Your task to perform on an android device: turn off javascript in the chrome app Image 0: 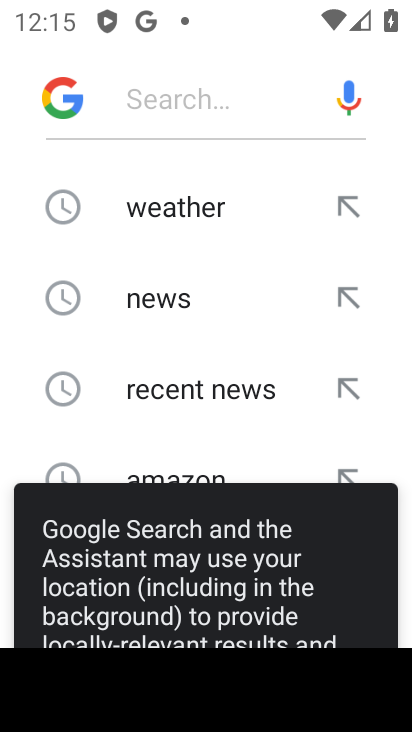
Step 0: press home button
Your task to perform on an android device: turn off javascript in the chrome app Image 1: 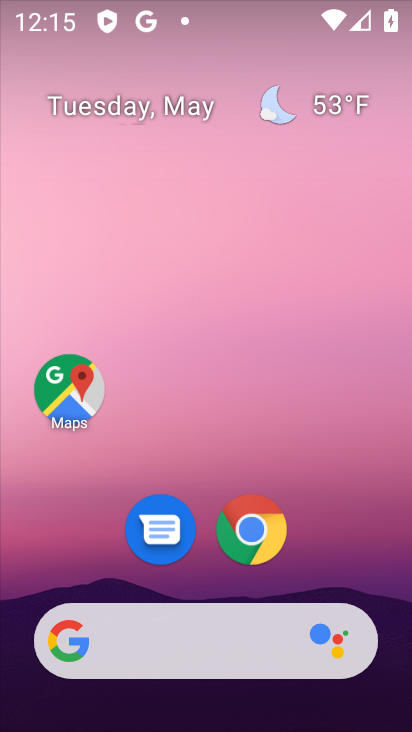
Step 1: click (259, 531)
Your task to perform on an android device: turn off javascript in the chrome app Image 2: 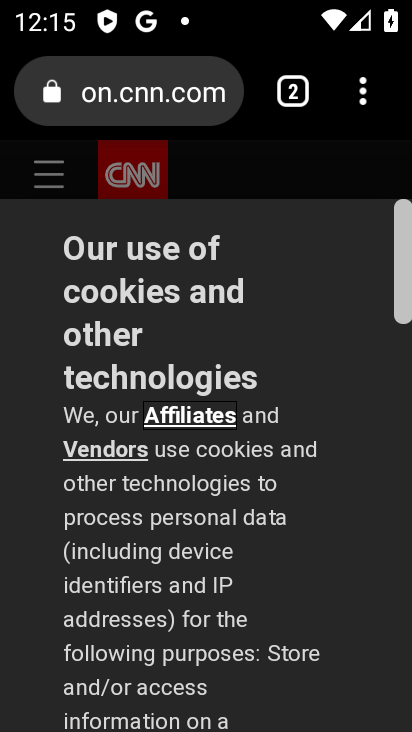
Step 2: click (363, 107)
Your task to perform on an android device: turn off javascript in the chrome app Image 3: 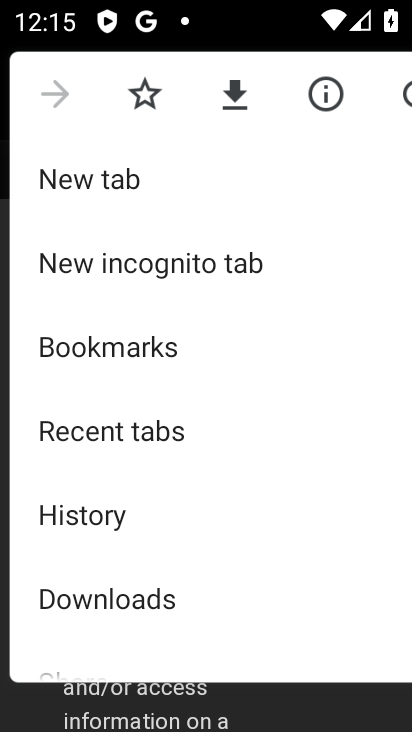
Step 3: drag from (110, 580) to (165, 165)
Your task to perform on an android device: turn off javascript in the chrome app Image 4: 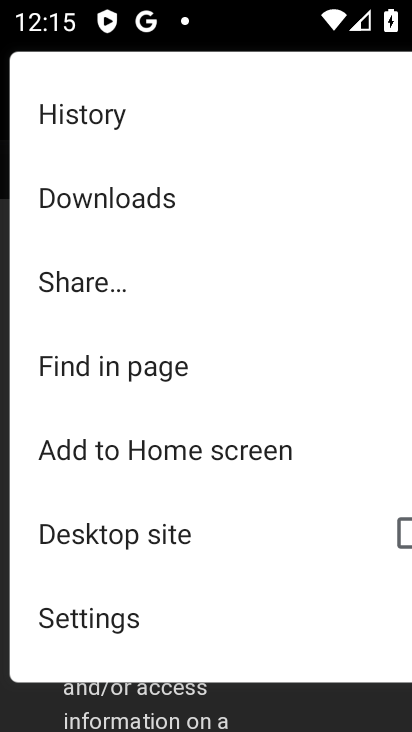
Step 4: drag from (163, 586) to (199, 253)
Your task to perform on an android device: turn off javascript in the chrome app Image 5: 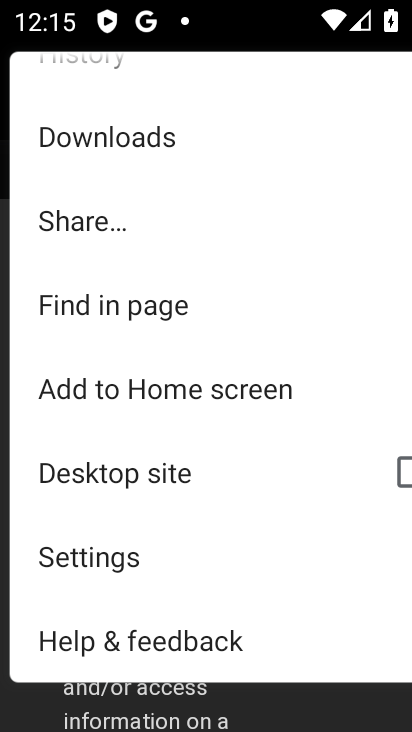
Step 5: click (120, 555)
Your task to perform on an android device: turn off javascript in the chrome app Image 6: 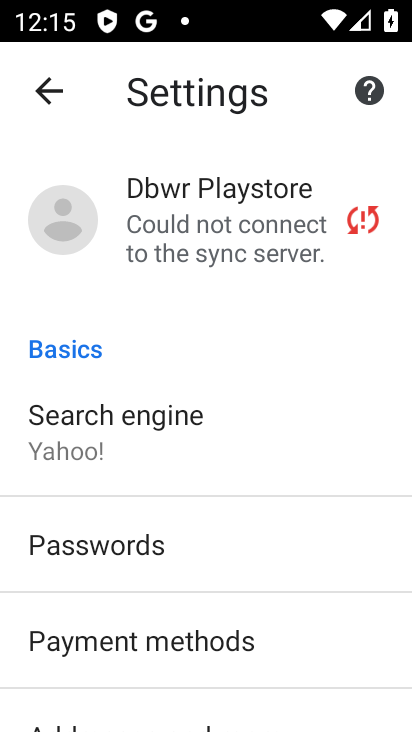
Step 6: drag from (143, 676) to (146, 269)
Your task to perform on an android device: turn off javascript in the chrome app Image 7: 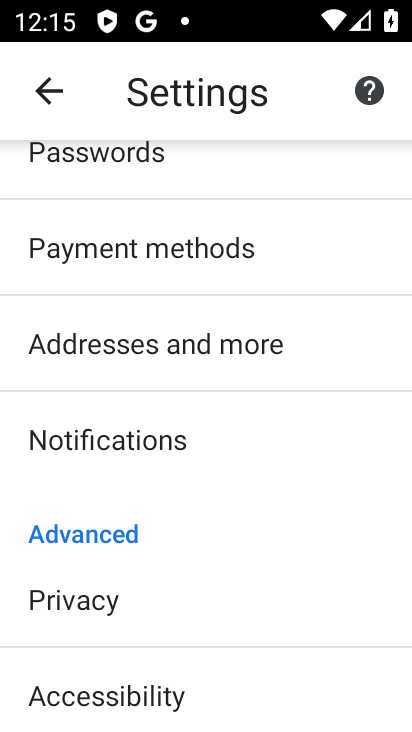
Step 7: drag from (130, 645) to (145, 229)
Your task to perform on an android device: turn off javascript in the chrome app Image 8: 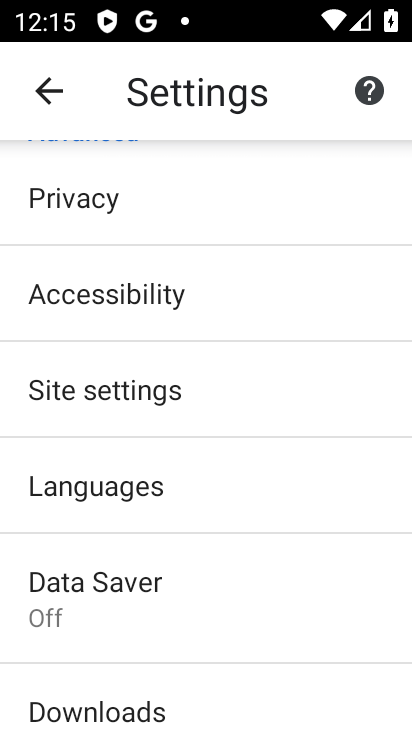
Step 8: click (112, 393)
Your task to perform on an android device: turn off javascript in the chrome app Image 9: 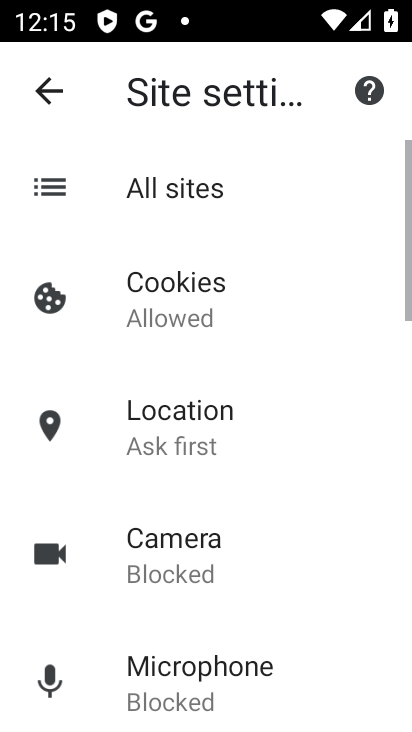
Step 9: drag from (182, 659) to (186, 241)
Your task to perform on an android device: turn off javascript in the chrome app Image 10: 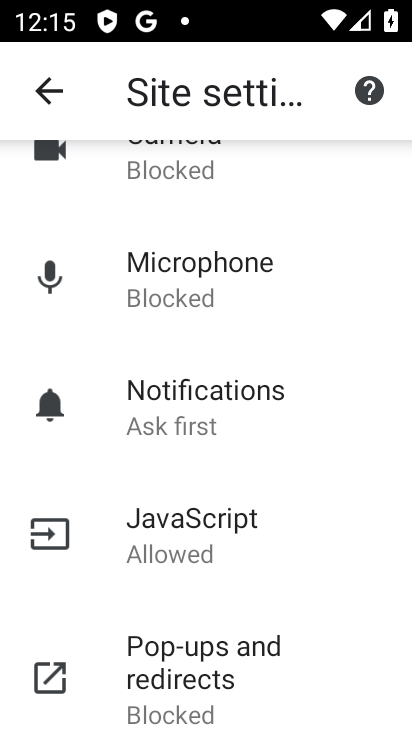
Step 10: drag from (198, 686) to (203, 293)
Your task to perform on an android device: turn off javascript in the chrome app Image 11: 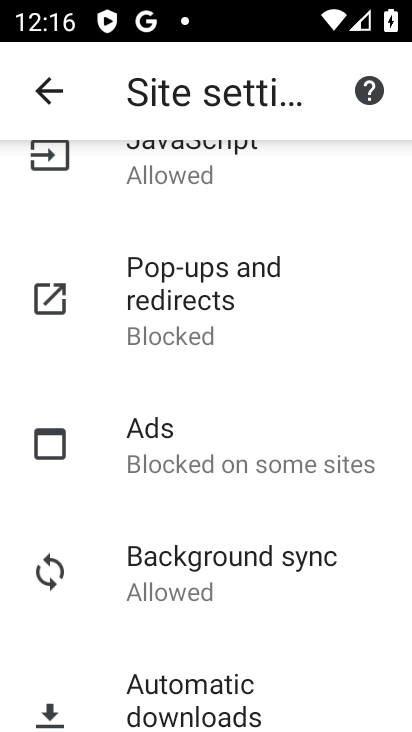
Step 11: drag from (202, 598) to (206, 238)
Your task to perform on an android device: turn off javascript in the chrome app Image 12: 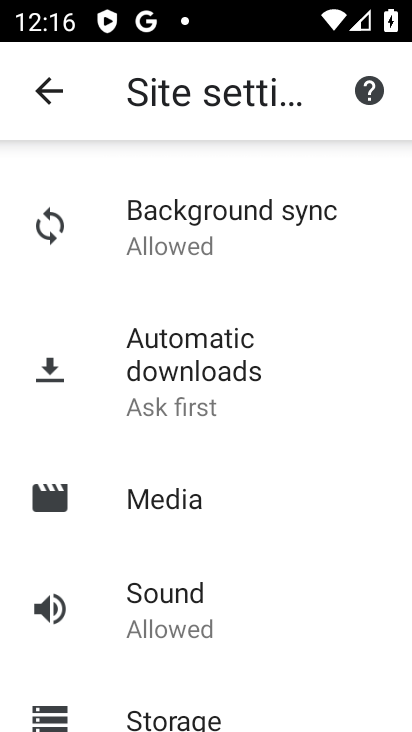
Step 12: drag from (193, 645) to (193, 224)
Your task to perform on an android device: turn off javascript in the chrome app Image 13: 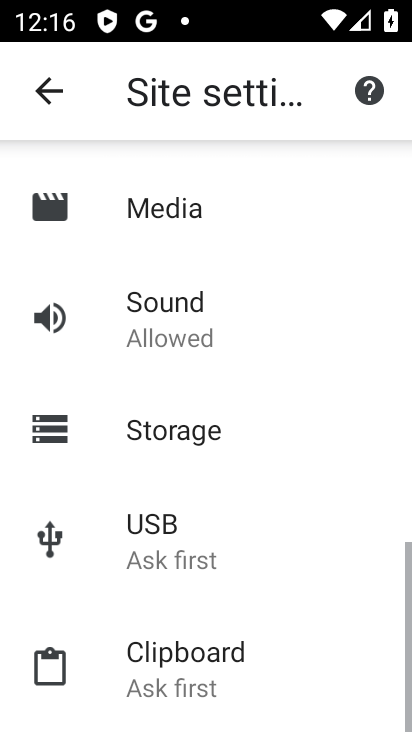
Step 13: drag from (172, 629) to (182, 228)
Your task to perform on an android device: turn off javascript in the chrome app Image 14: 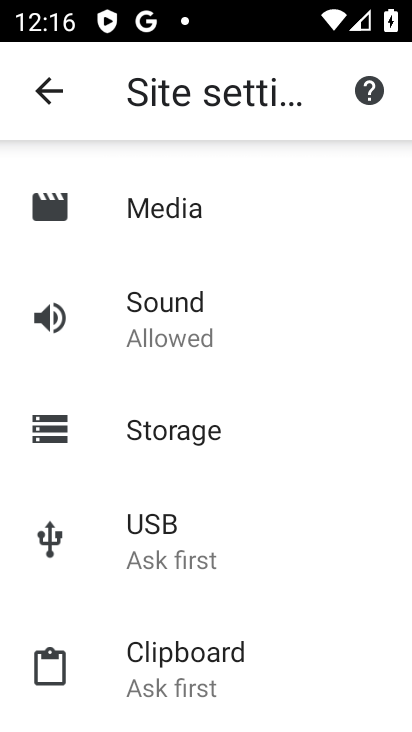
Step 14: drag from (235, 250) to (233, 663)
Your task to perform on an android device: turn off javascript in the chrome app Image 15: 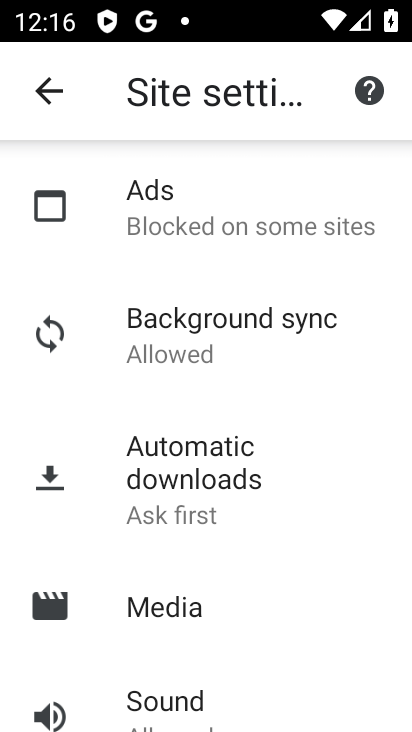
Step 15: drag from (245, 221) to (243, 554)
Your task to perform on an android device: turn off javascript in the chrome app Image 16: 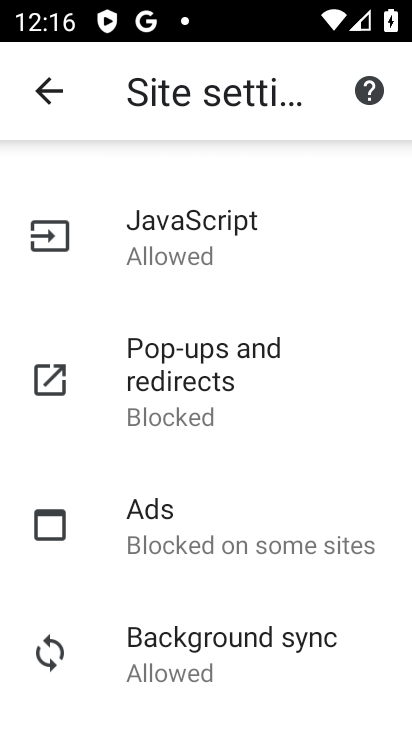
Step 16: click (183, 235)
Your task to perform on an android device: turn off javascript in the chrome app Image 17: 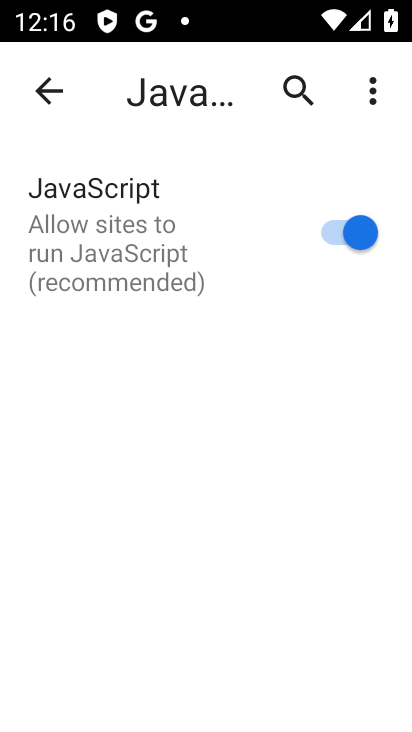
Step 17: click (333, 234)
Your task to perform on an android device: turn off javascript in the chrome app Image 18: 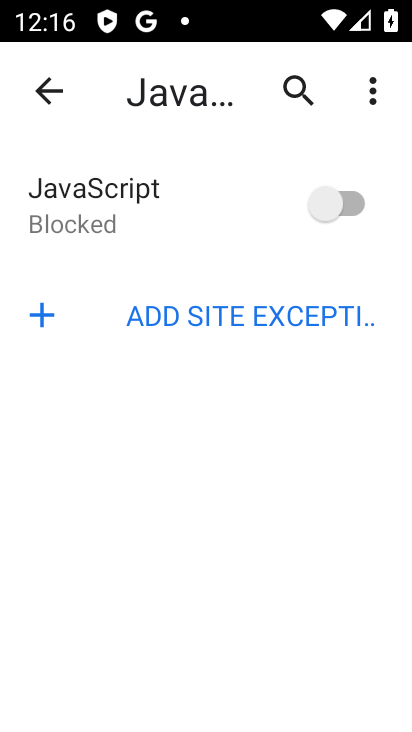
Step 18: task complete